Your task to perform on an android device: change the upload size in google photos Image 0: 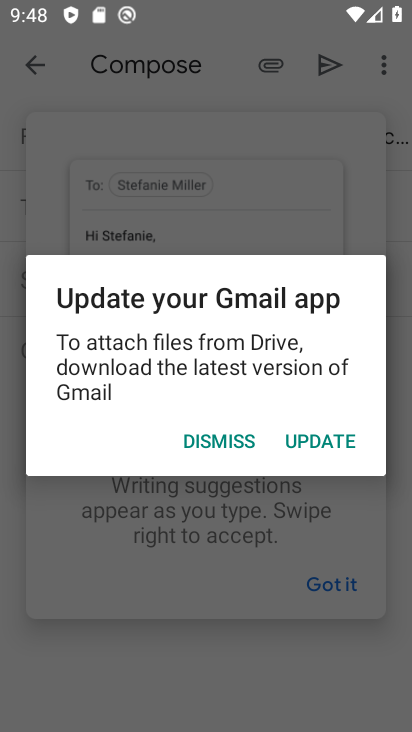
Step 0: press home button
Your task to perform on an android device: change the upload size in google photos Image 1: 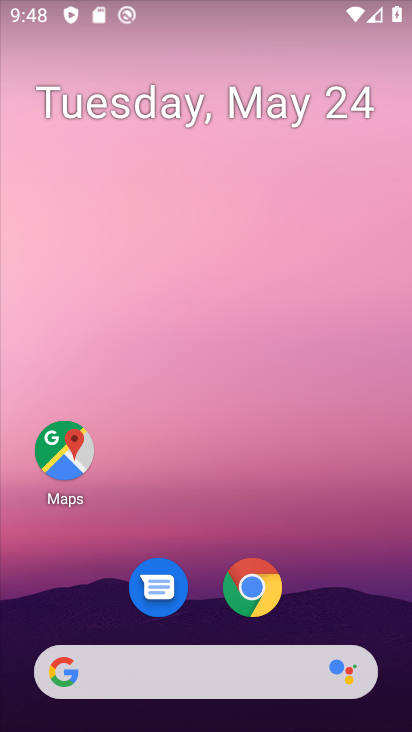
Step 1: drag from (353, 579) to (346, 25)
Your task to perform on an android device: change the upload size in google photos Image 2: 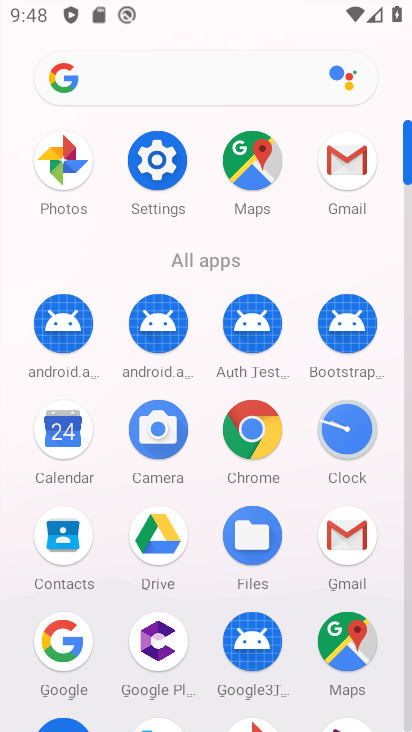
Step 2: click (65, 162)
Your task to perform on an android device: change the upload size in google photos Image 3: 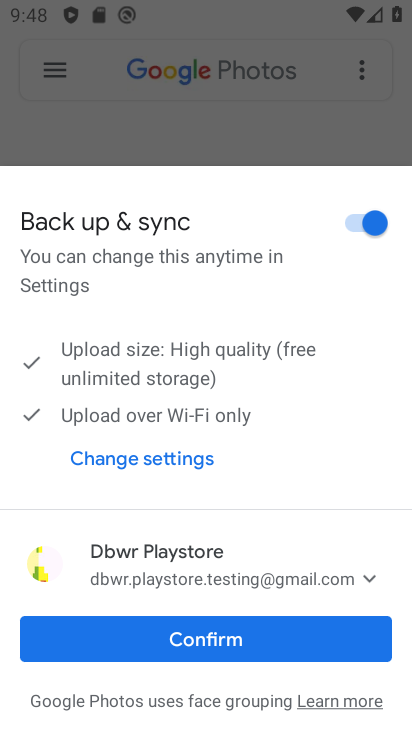
Step 3: click (217, 636)
Your task to perform on an android device: change the upload size in google photos Image 4: 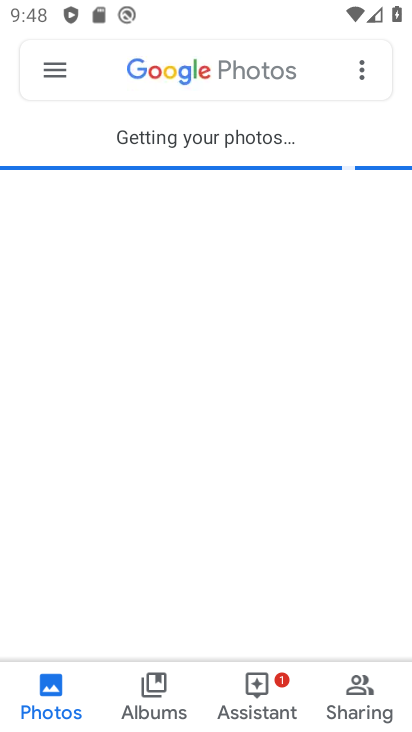
Step 4: click (56, 72)
Your task to perform on an android device: change the upload size in google photos Image 5: 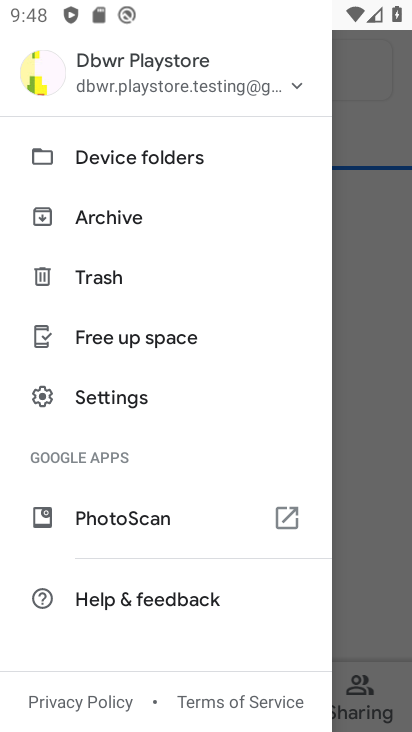
Step 5: click (116, 386)
Your task to perform on an android device: change the upload size in google photos Image 6: 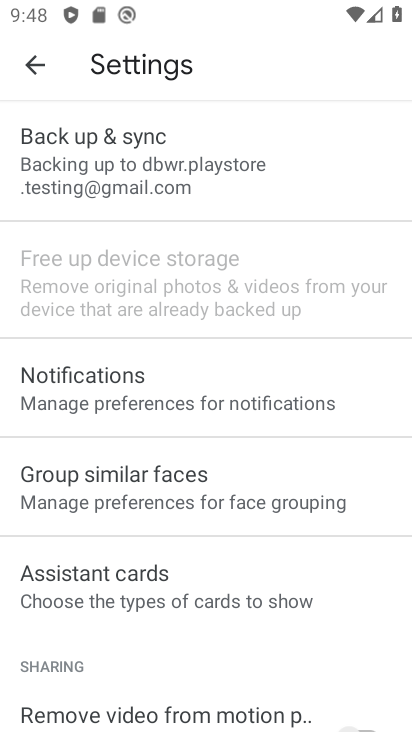
Step 6: click (134, 148)
Your task to perform on an android device: change the upload size in google photos Image 7: 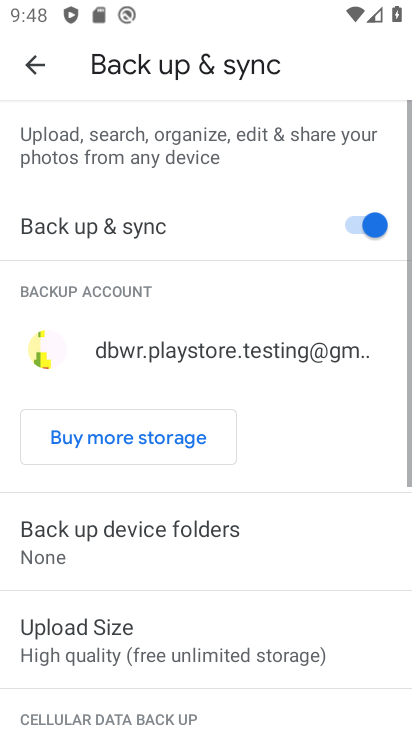
Step 7: click (239, 618)
Your task to perform on an android device: change the upload size in google photos Image 8: 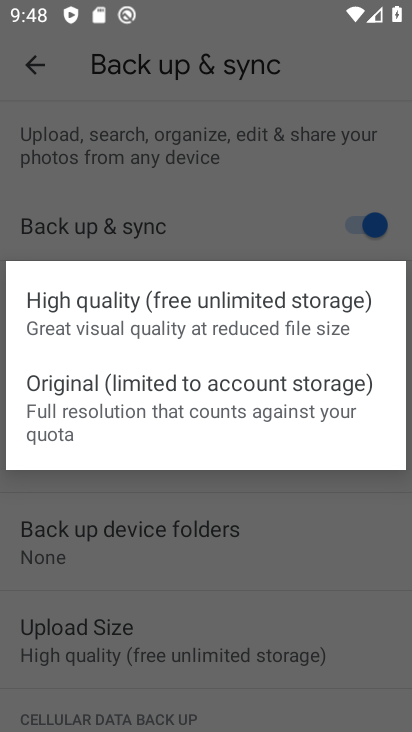
Step 8: click (178, 381)
Your task to perform on an android device: change the upload size in google photos Image 9: 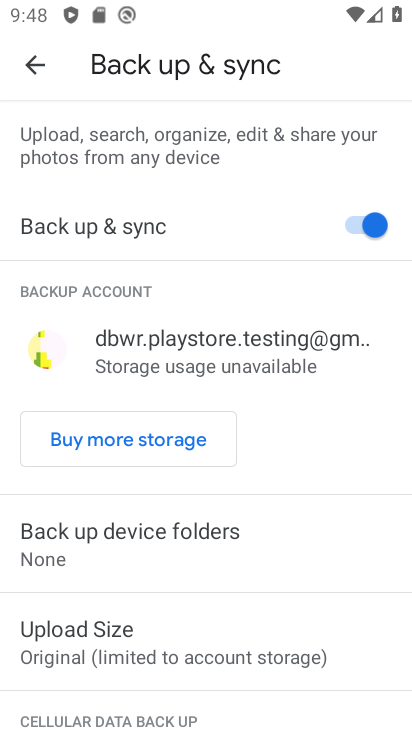
Step 9: task complete